Your task to perform on an android device: open chrome privacy settings Image 0: 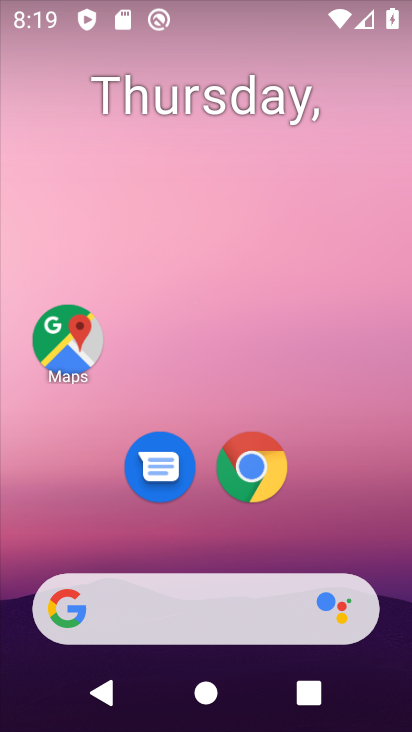
Step 0: click (254, 469)
Your task to perform on an android device: open chrome privacy settings Image 1: 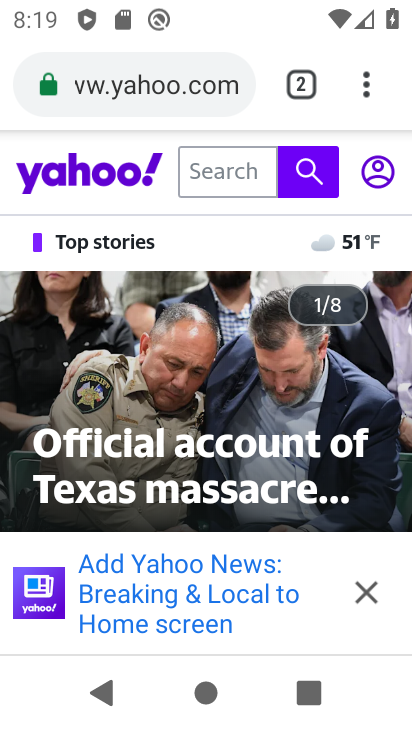
Step 1: click (365, 83)
Your task to perform on an android device: open chrome privacy settings Image 2: 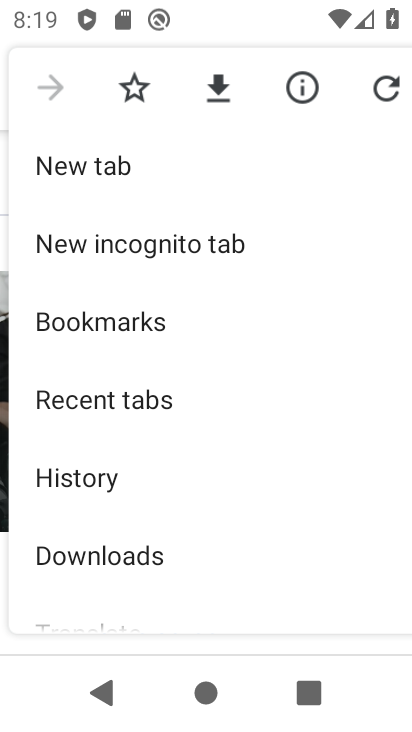
Step 2: drag from (244, 521) to (154, 137)
Your task to perform on an android device: open chrome privacy settings Image 3: 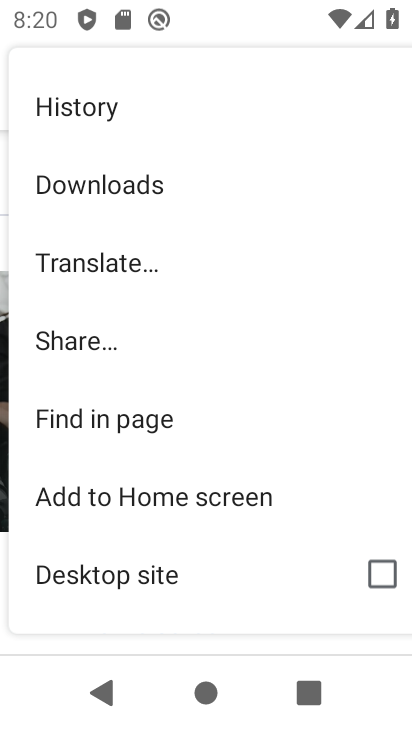
Step 3: drag from (228, 527) to (194, 90)
Your task to perform on an android device: open chrome privacy settings Image 4: 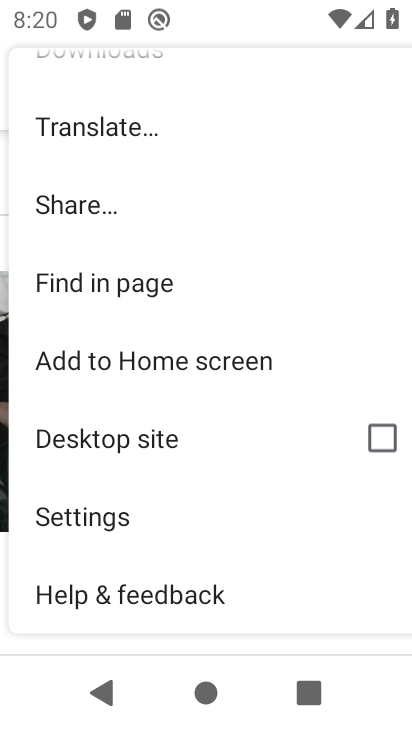
Step 4: click (96, 508)
Your task to perform on an android device: open chrome privacy settings Image 5: 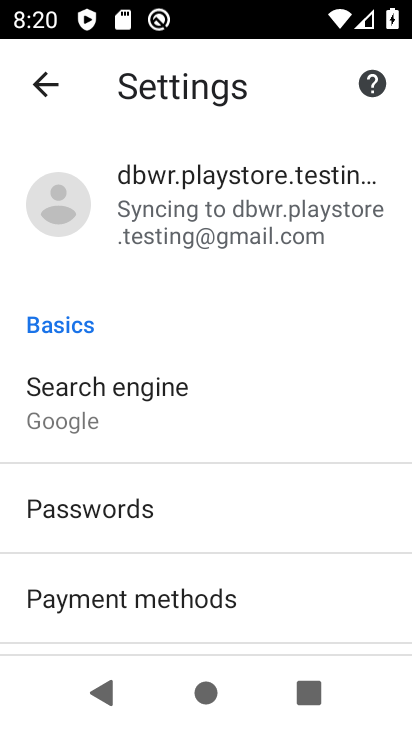
Step 5: drag from (305, 518) to (238, 162)
Your task to perform on an android device: open chrome privacy settings Image 6: 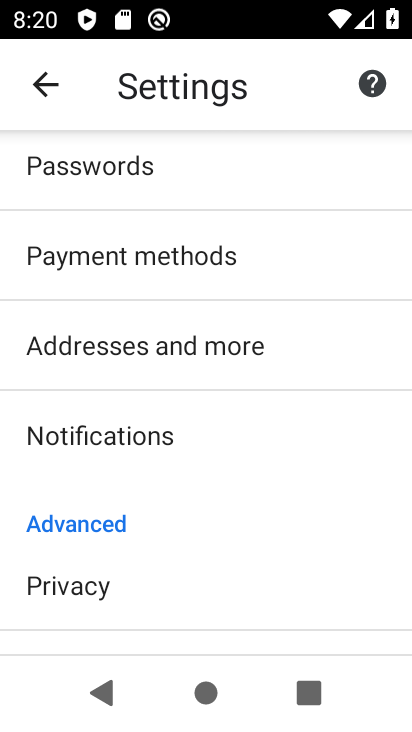
Step 6: click (74, 581)
Your task to perform on an android device: open chrome privacy settings Image 7: 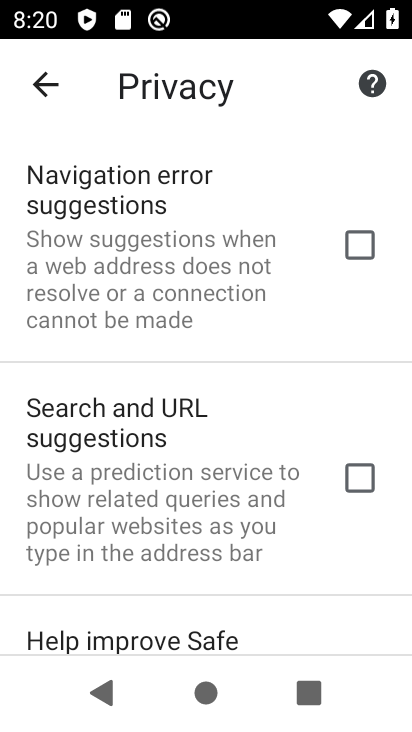
Step 7: task complete